Your task to perform on an android device: check battery use Image 0: 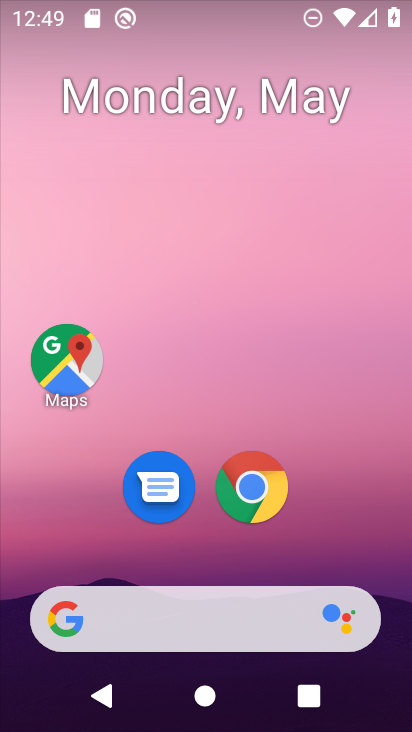
Step 0: drag from (328, 541) to (219, 82)
Your task to perform on an android device: check battery use Image 1: 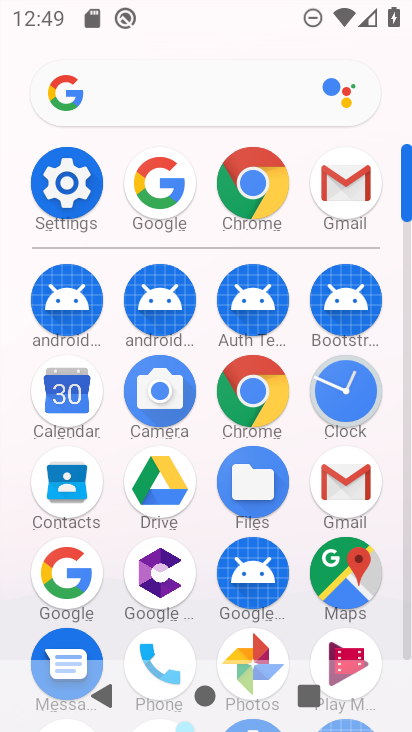
Step 1: click (67, 181)
Your task to perform on an android device: check battery use Image 2: 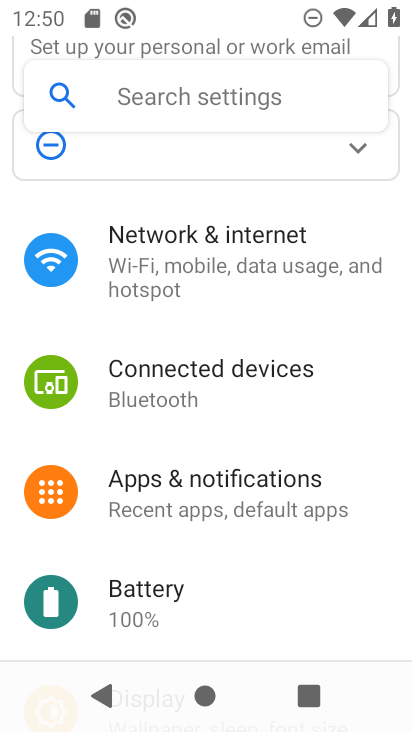
Step 2: click (152, 598)
Your task to perform on an android device: check battery use Image 3: 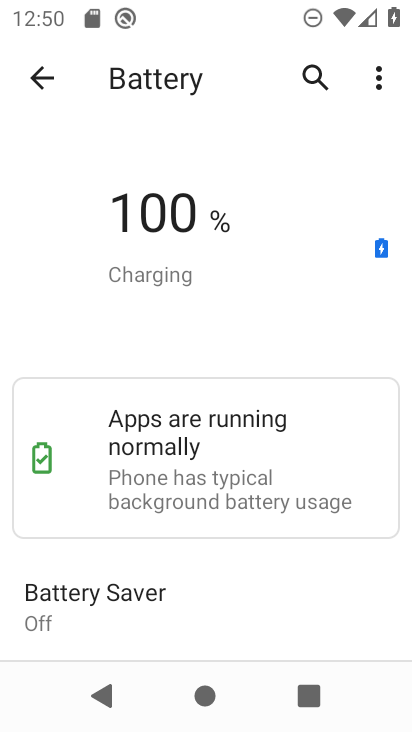
Step 3: click (380, 74)
Your task to perform on an android device: check battery use Image 4: 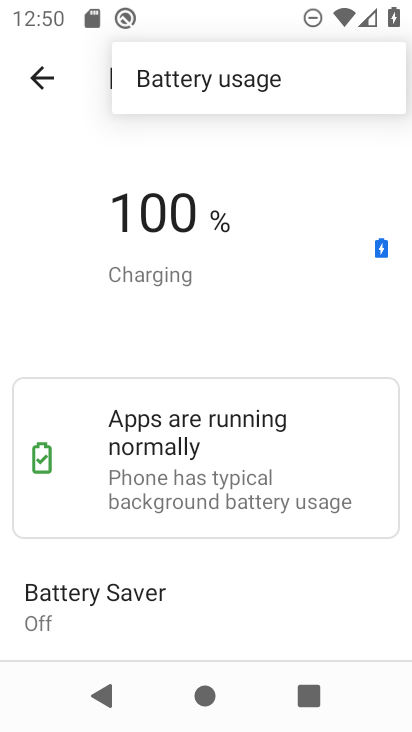
Step 4: click (238, 87)
Your task to perform on an android device: check battery use Image 5: 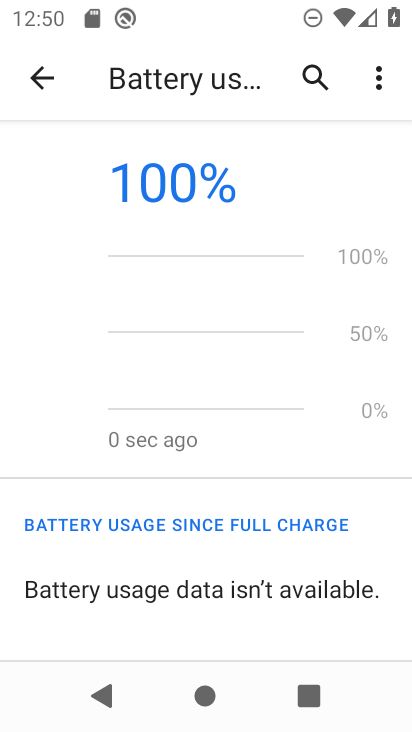
Step 5: task complete